Your task to perform on an android device: Open Amazon Image 0: 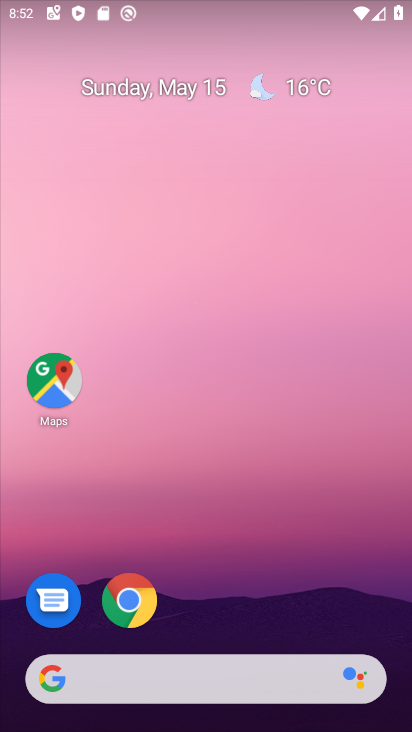
Step 0: click (128, 600)
Your task to perform on an android device: Open Amazon Image 1: 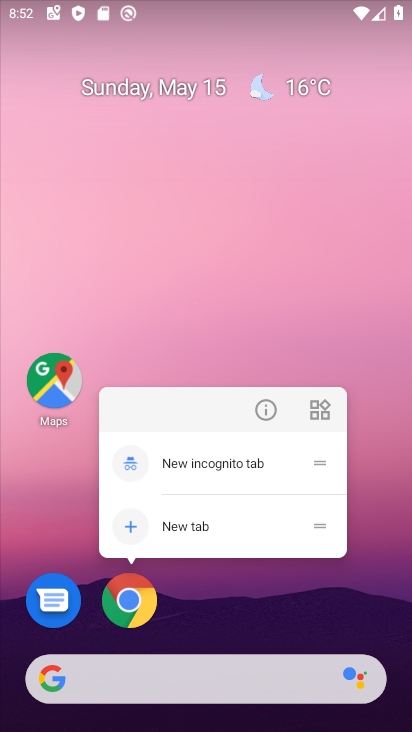
Step 1: click (129, 596)
Your task to perform on an android device: Open Amazon Image 2: 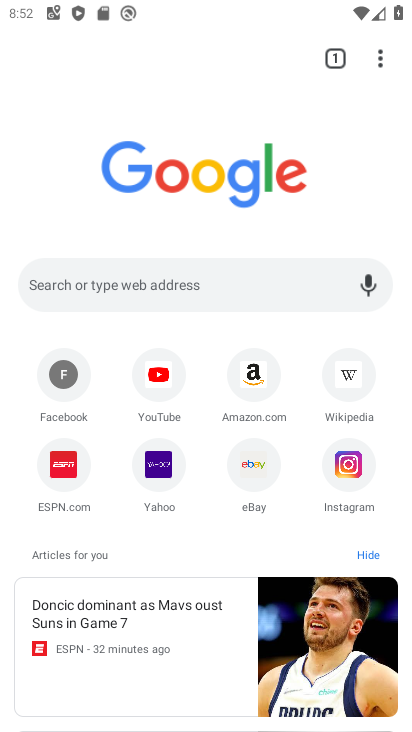
Step 2: click (263, 378)
Your task to perform on an android device: Open Amazon Image 3: 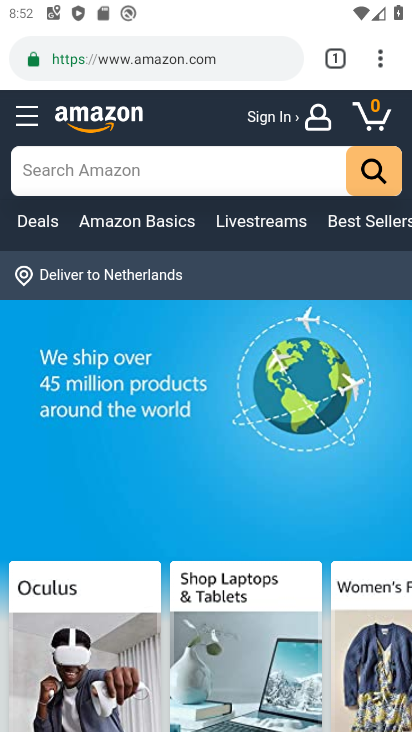
Step 3: task complete